Your task to perform on an android device: turn on wifi Image 0: 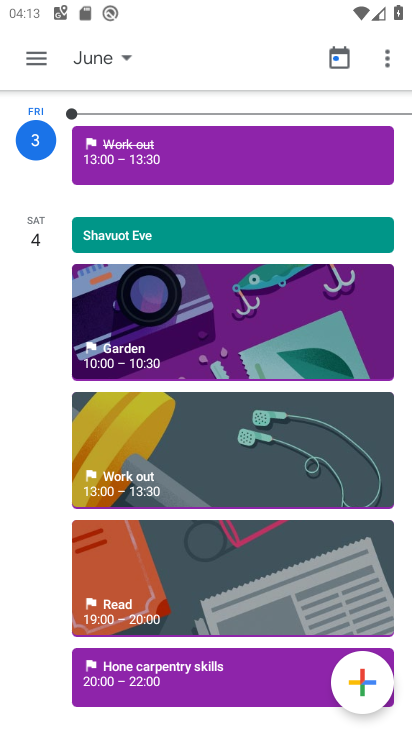
Step 0: press home button
Your task to perform on an android device: turn on wifi Image 1: 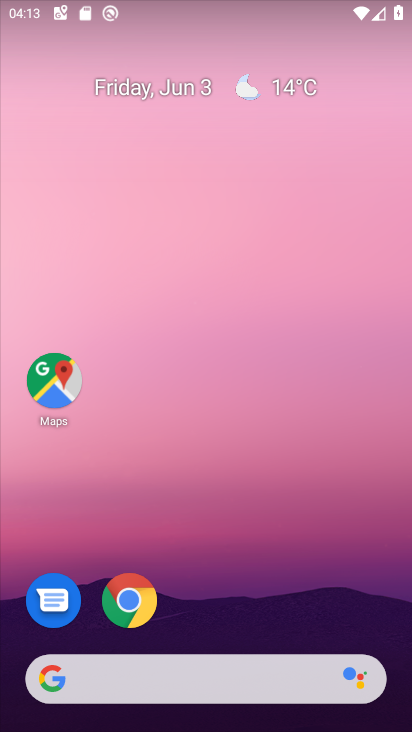
Step 1: drag from (324, 597) to (242, 120)
Your task to perform on an android device: turn on wifi Image 2: 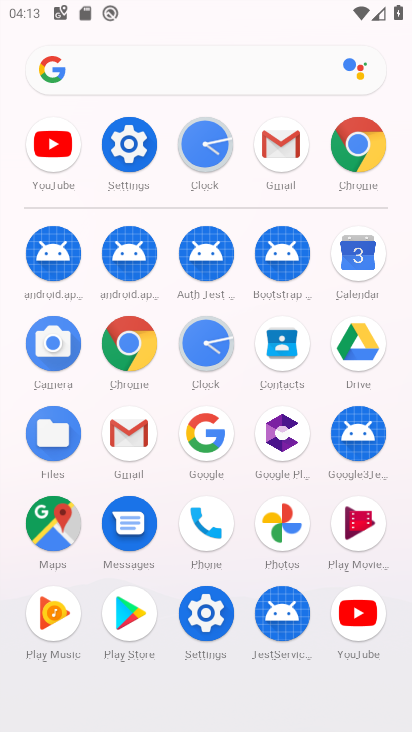
Step 2: click (128, 151)
Your task to perform on an android device: turn on wifi Image 3: 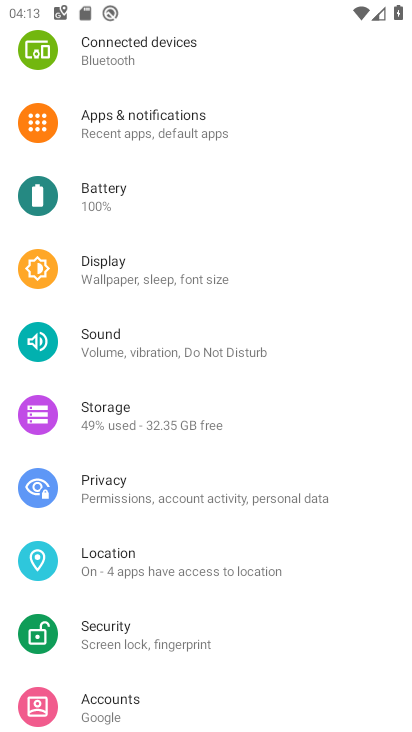
Step 3: drag from (196, 90) to (244, 502)
Your task to perform on an android device: turn on wifi Image 4: 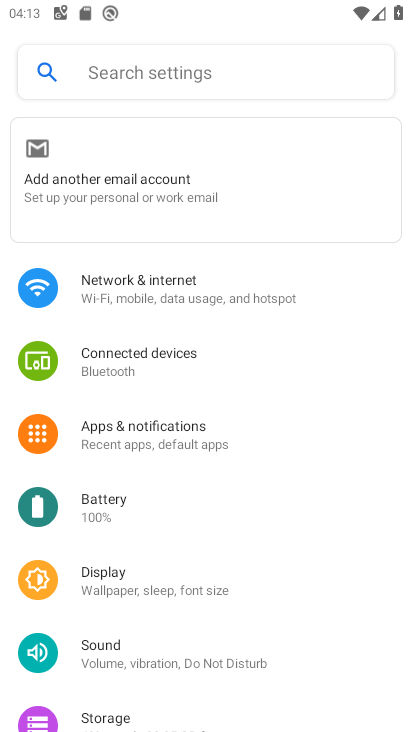
Step 4: click (177, 283)
Your task to perform on an android device: turn on wifi Image 5: 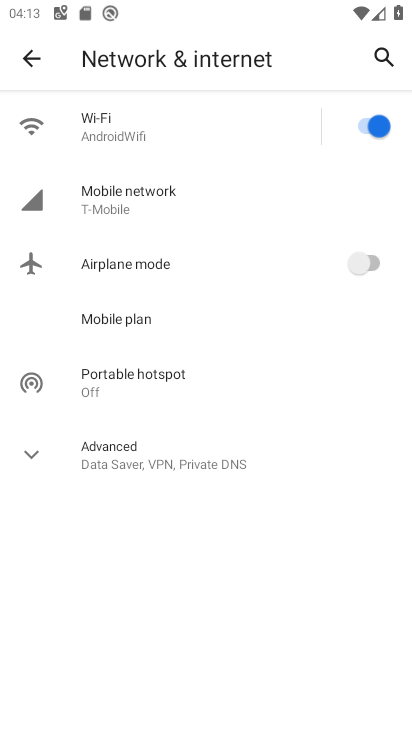
Step 5: task complete